Your task to perform on an android device: Open network settings Image 0: 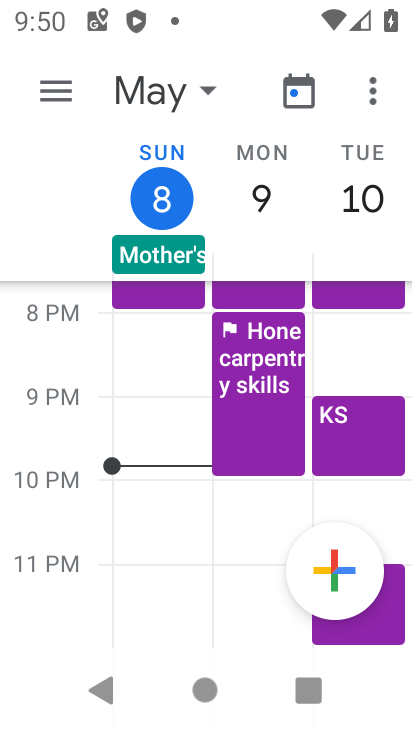
Step 0: press home button
Your task to perform on an android device: Open network settings Image 1: 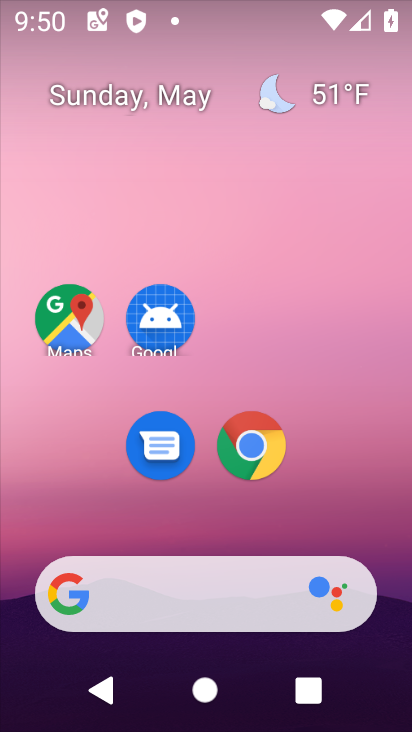
Step 1: drag from (340, 515) to (269, 55)
Your task to perform on an android device: Open network settings Image 2: 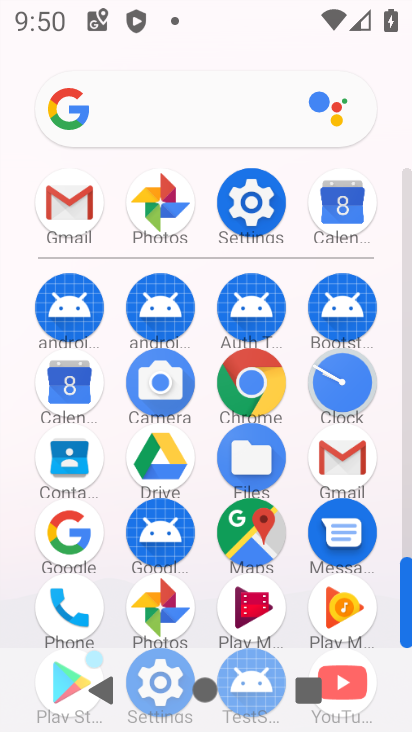
Step 2: click (243, 212)
Your task to perform on an android device: Open network settings Image 3: 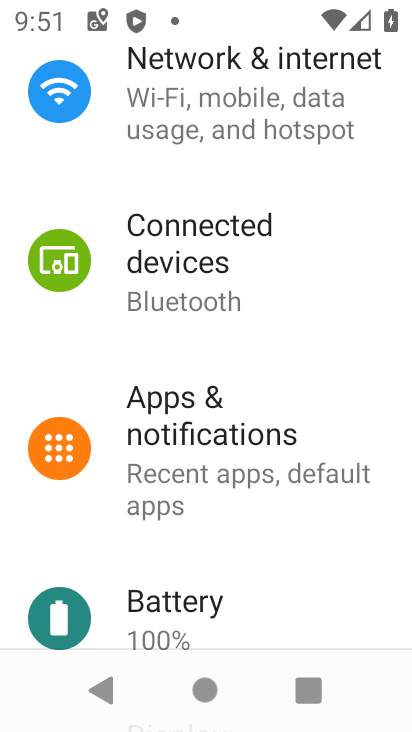
Step 3: drag from (245, 354) to (172, 648)
Your task to perform on an android device: Open network settings Image 4: 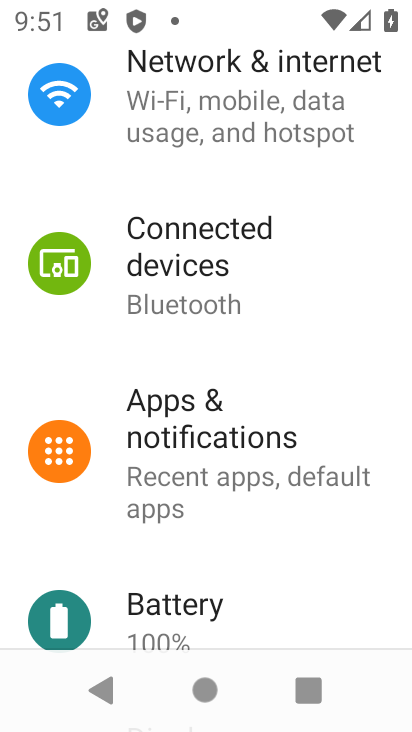
Step 4: click (183, 79)
Your task to perform on an android device: Open network settings Image 5: 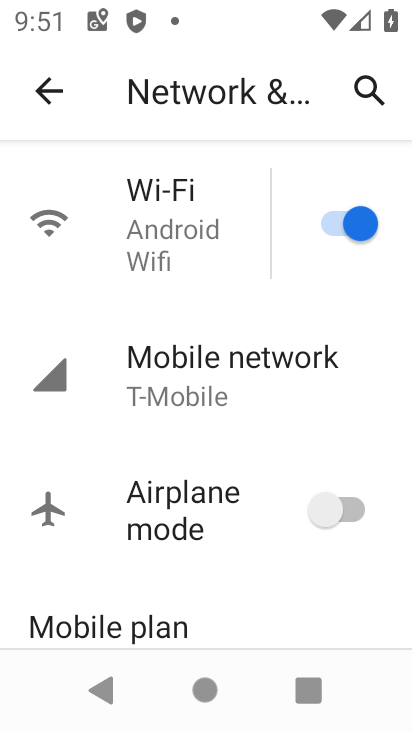
Step 5: task complete